Your task to perform on an android device: Search for Mexican restaurants on Maps Image 0: 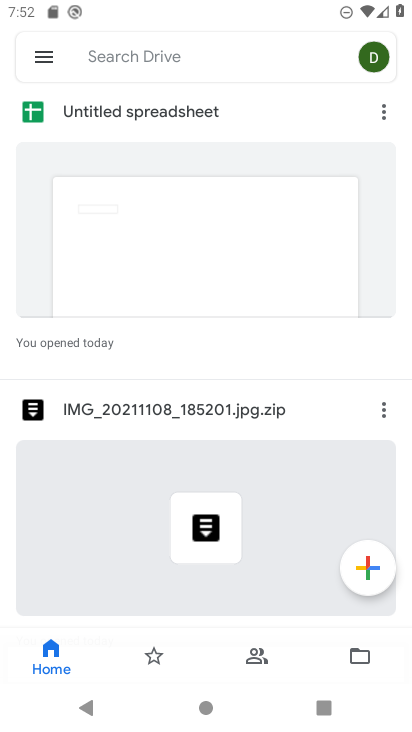
Step 0: drag from (210, 569) to (351, 203)
Your task to perform on an android device: Search for Mexican restaurants on Maps Image 1: 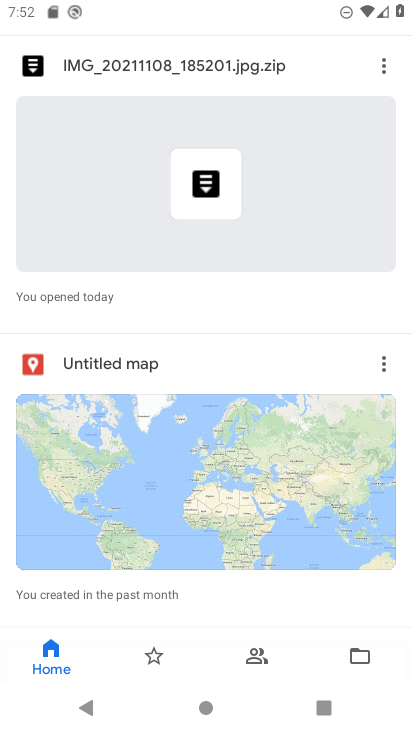
Step 1: press home button
Your task to perform on an android device: Search for Mexican restaurants on Maps Image 2: 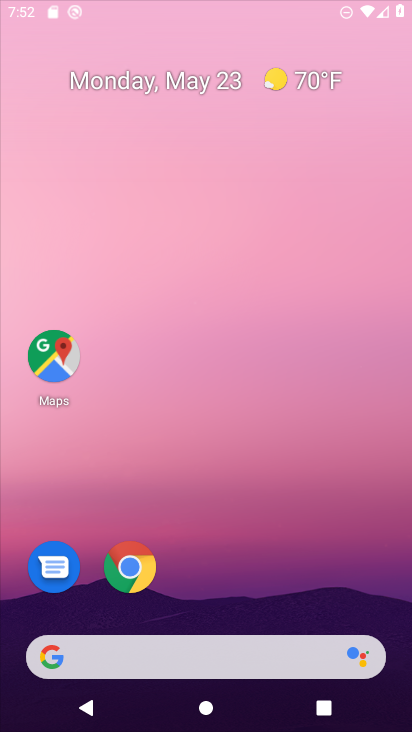
Step 2: drag from (288, 577) to (367, 39)
Your task to perform on an android device: Search for Mexican restaurants on Maps Image 3: 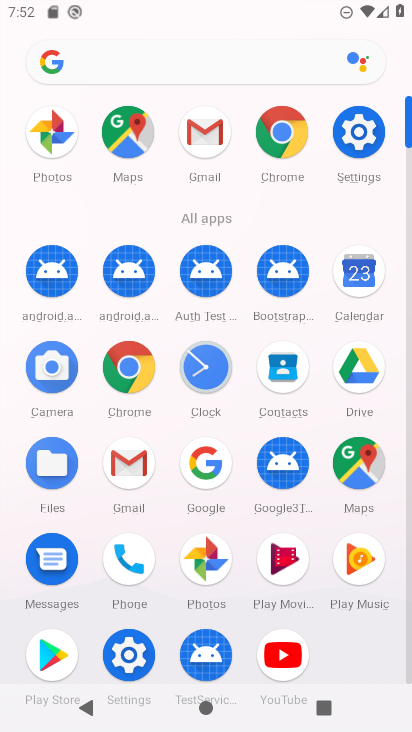
Step 3: click (361, 468)
Your task to perform on an android device: Search for Mexican restaurants on Maps Image 4: 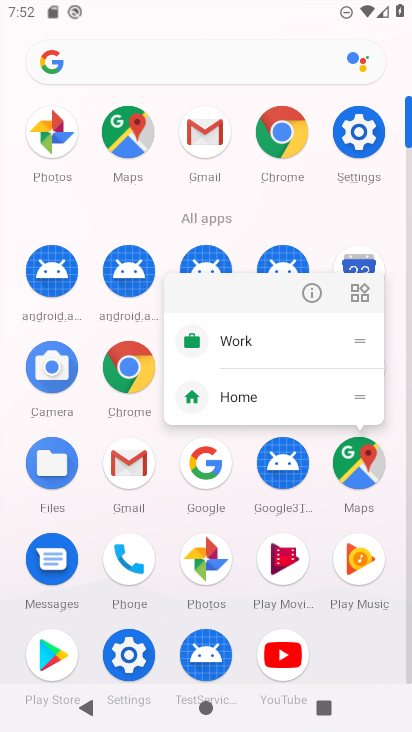
Step 4: click (316, 295)
Your task to perform on an android device: Search for Mexican restaurants on Maps Image 5: 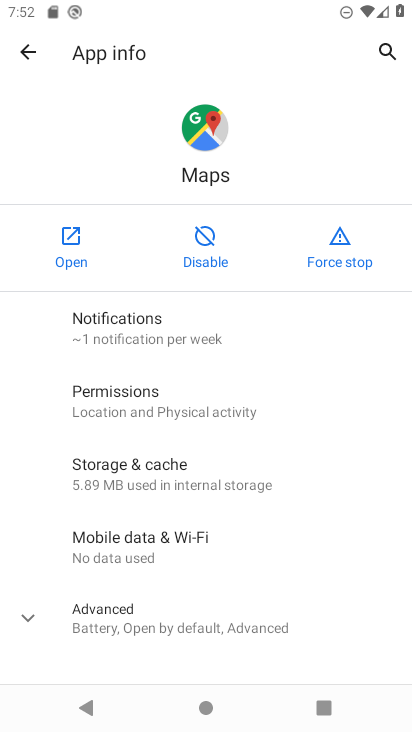
Step 5: click (71, 260)
Your task to perform on an android device: Search for Mexican restaurants on Maps Image 6: 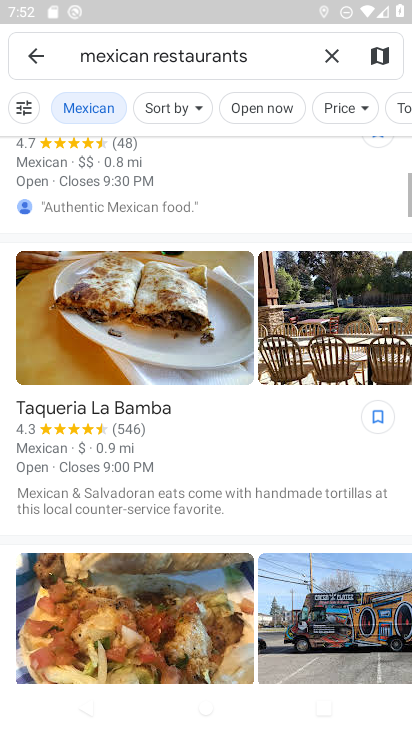
Step 6: task complete